Your task to perform on an android device: Go to privacy settings Image 0: 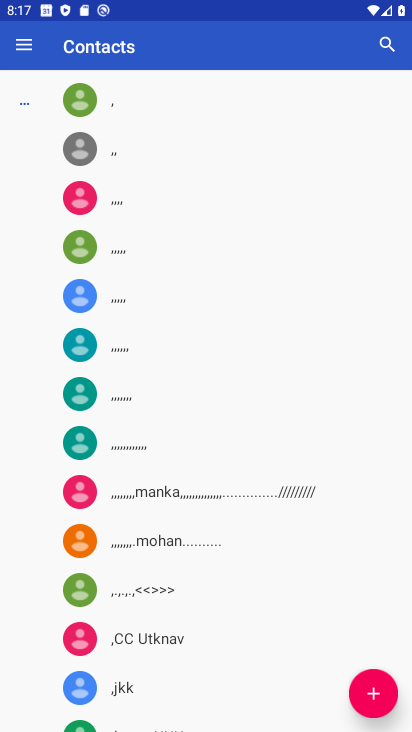
Step 0: press home button
Your task to perform on an android device: Go to privacy settings Image 1: 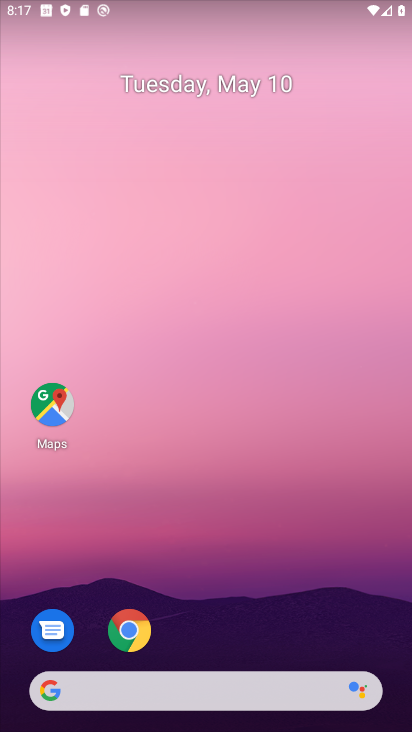
Step 1: drag from (201, 709) to (230, 93)
Your task to perform on an android device: Go to privacy settings Image 2: 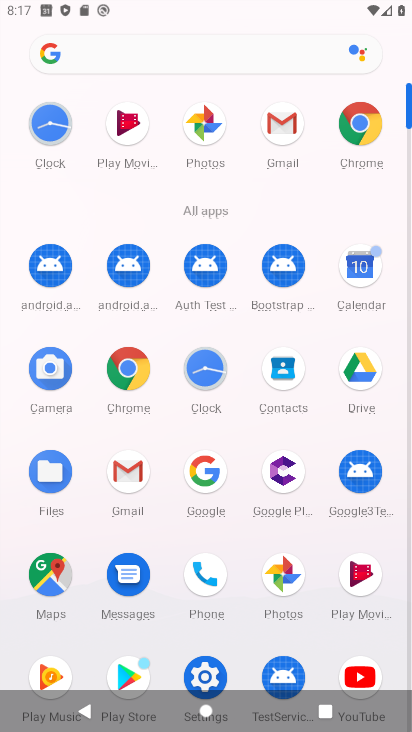
Step 2: drag from (235, 551) to (197, 127)
Your task to perform on an android device: Go to privacy settings Image 3: 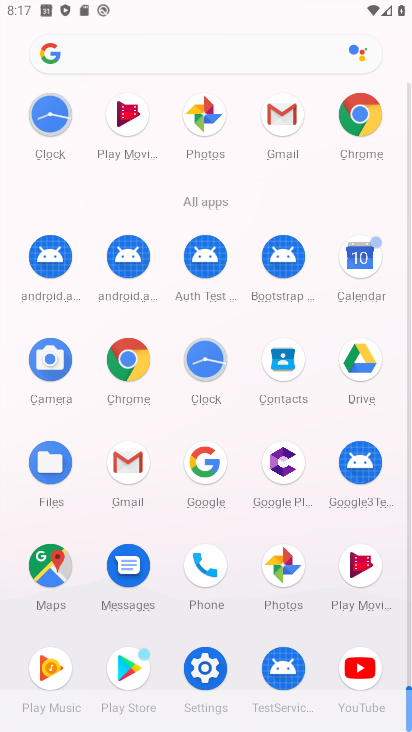
Step 3: click (213, 658)
Your task to perform on an android device: Go to privacy settings Image 4: 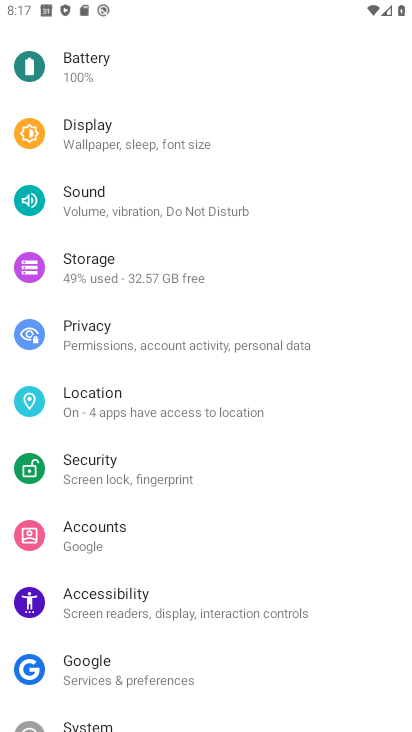
Step 4: click (167, 342)
Your task to perform on an android device: Go to privacy settings Image 5: 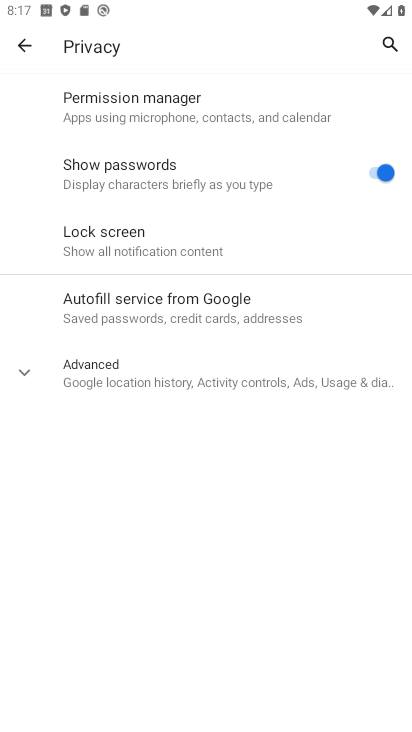
Step 5: task complete